Your task to perform on an android device: read, delete, or share a saved page in the chrome app Image 0: 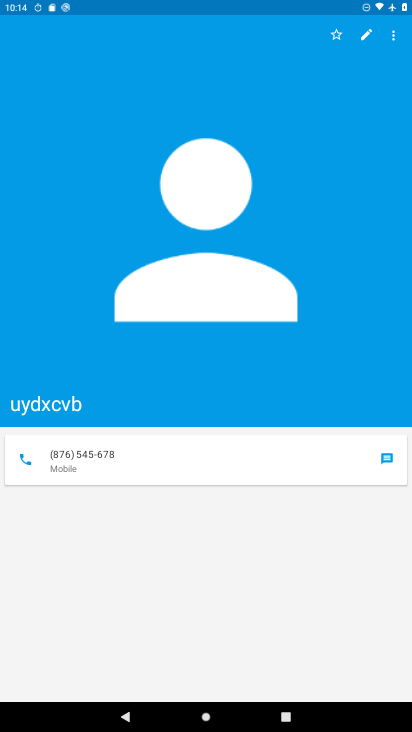
Step 0: press home button
Your task to perform on an android device: read, delete, or share a saved page in the chrome app Image 1: 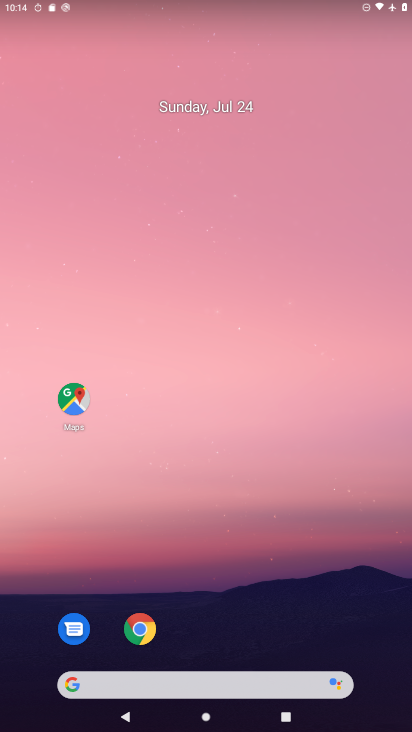
Step 1: drag from (138, 521) to (123, 269)
Your task to perform on an android device: read, delete, or share a saved page in the chrome app Image 2: 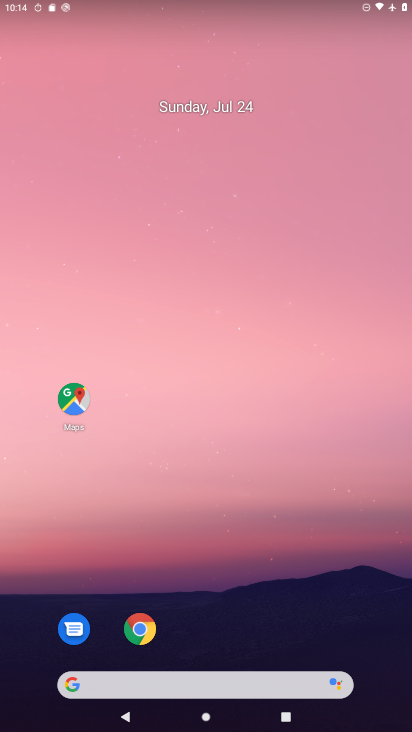
Step 2: drag from (144, 595) to (162, 295)
Your task to perform on an android device: read, delete, or share a saved page in the chrome app Image 3: 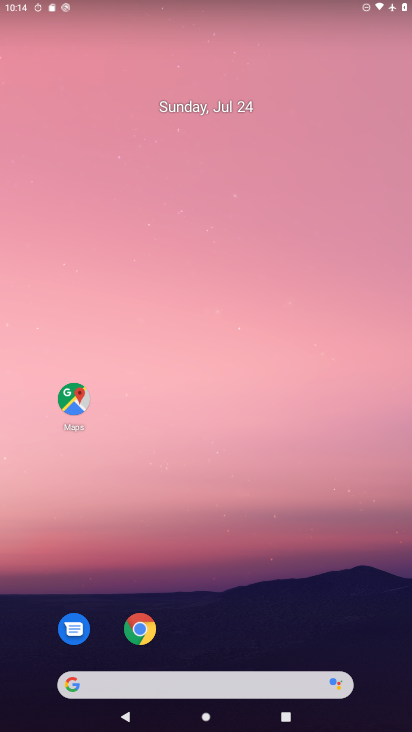
Step 3: drag from (204, 580) to (223, 78)
Your task to perform on an android device: read, delete, or share a saved page in the chrome app Image 4: 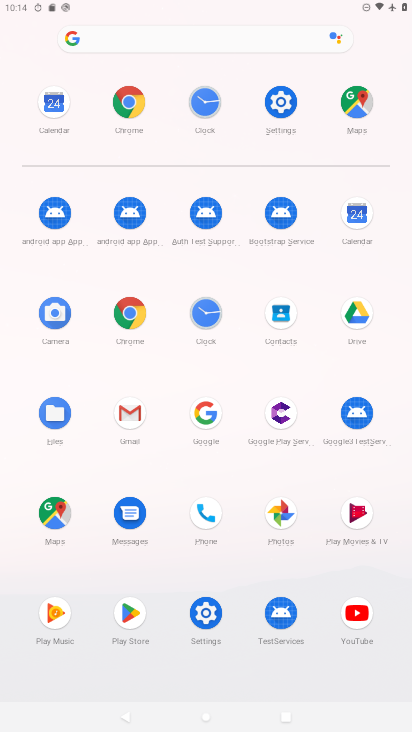
Step 4: click (125, 327)
Your task to perform on an android device: read, delete, or share a saved page in the chrome app Image 5: 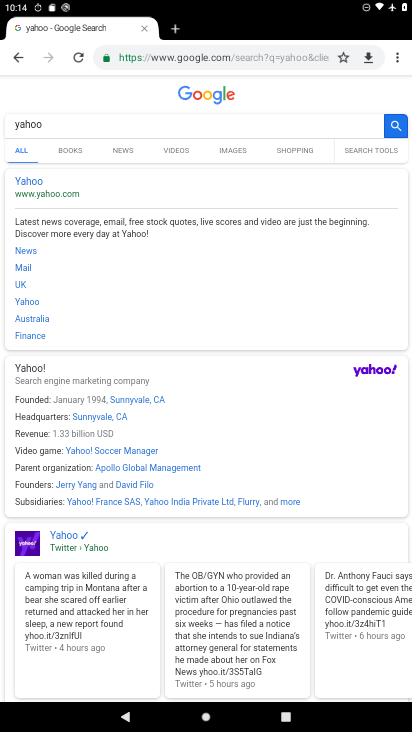
Step 5: click (397, 61)
Your task to perform on an android device: read, delete, or share a saved page in the chrome app Image 6: 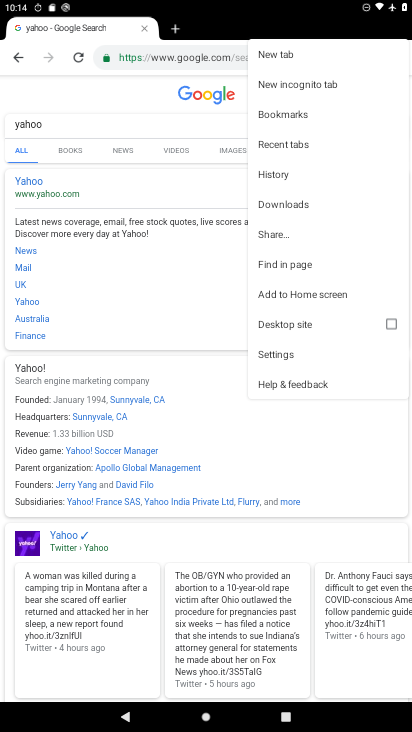
Step 6: click (295, 207)
Your task to perform on an android device: read, delete, or share a saved page in the chrome app Image 7: 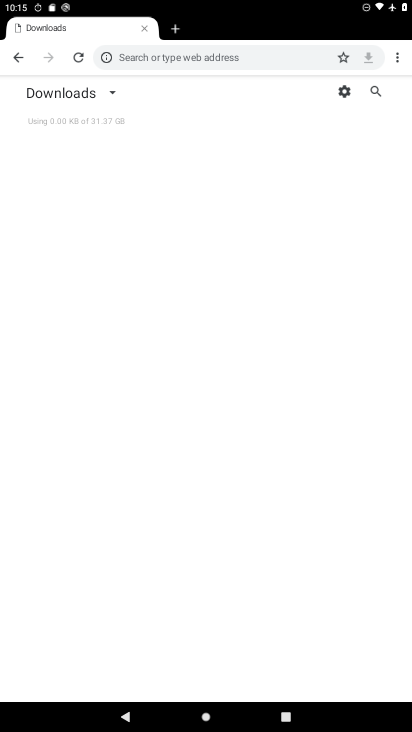
Step 7: click (98, 92)
Your task to perform on an android device: read, delete, or share a saved page in the chrome app Image 8: 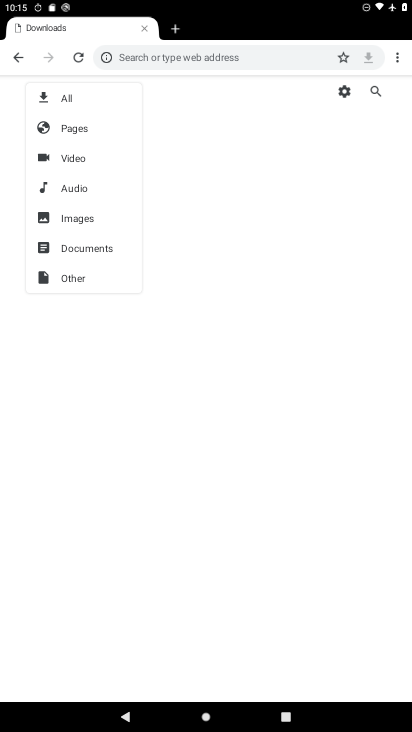
Step 8: click (111, 93)
Your task to perform on an android device: read, delete, or share a saved page in the chrome app Image 9: 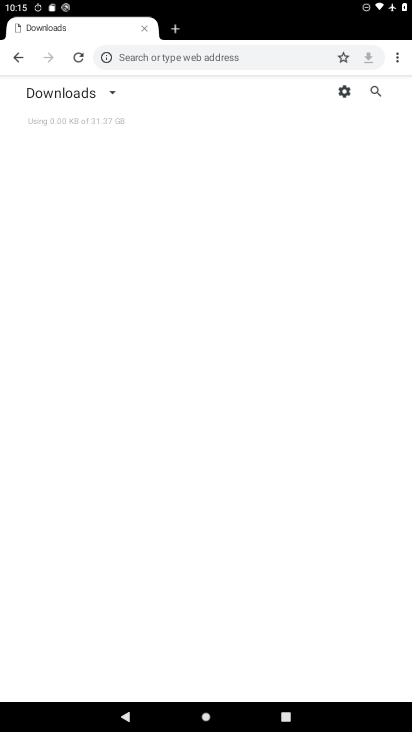
Step 9: click (101, 86)
Your task to perform on an android device: read, delete, or share a saved page in the chrome app Image 10: 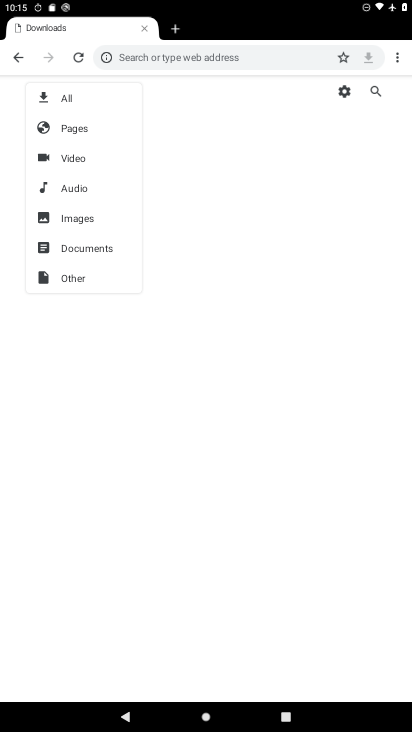
Step 10: click (82, 138)
Your task to perform on an android device: read, delete, or share a saved page in the chrome app Image 11: 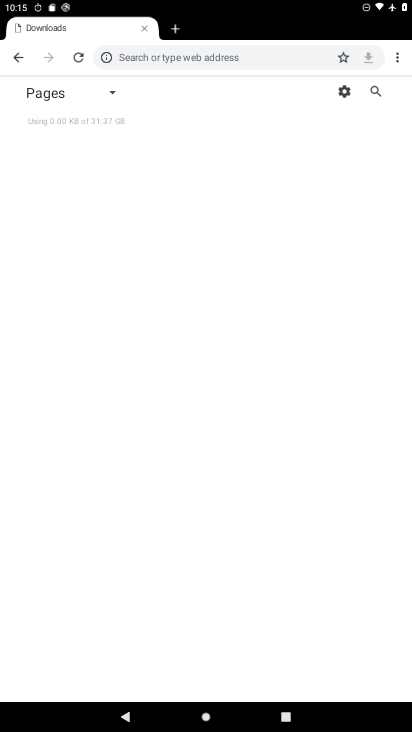
Step 11: task complete